Your task to perform on an android device: Find coffee shops on Maps Image 0: 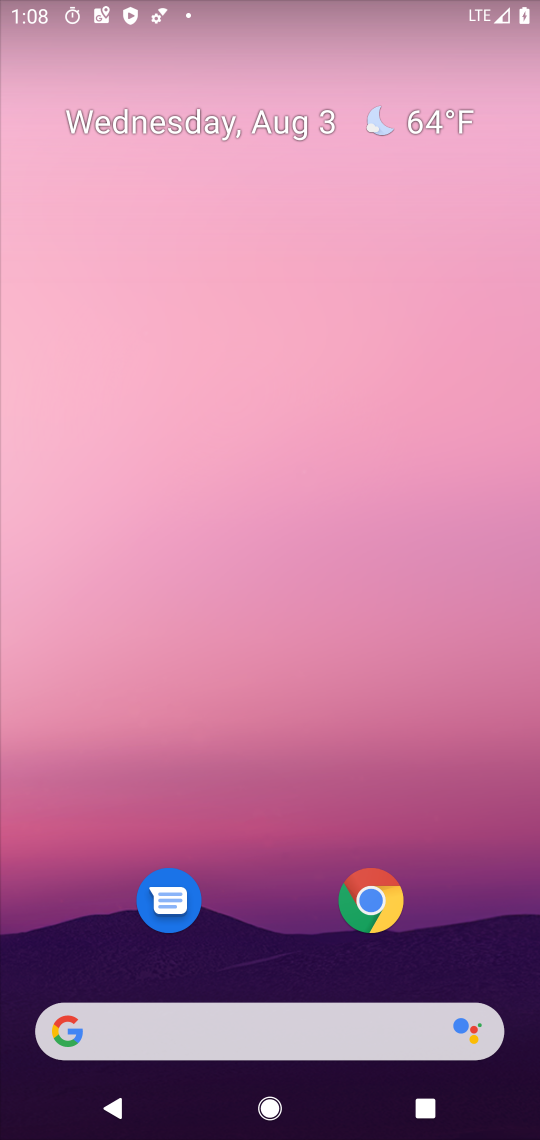
Step 0: drag from (294, 730) to (323, 153)
Your task to perform on an android device: Find coffee shops on Maps Image 1: 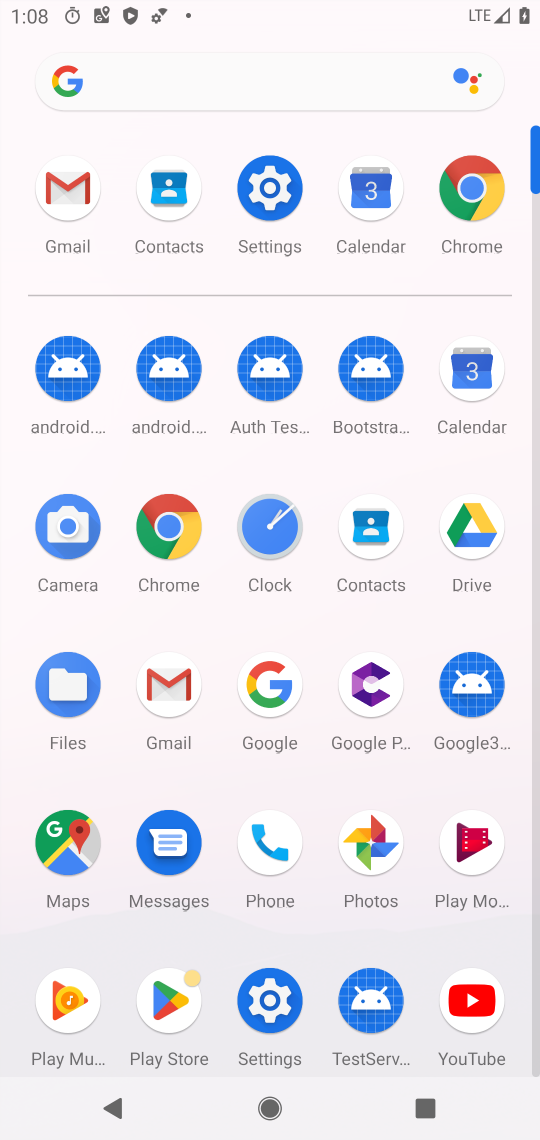
Step 1: click (65, 847)
Your task to perform on an android device: Find coffee shops on Maps Image 2: 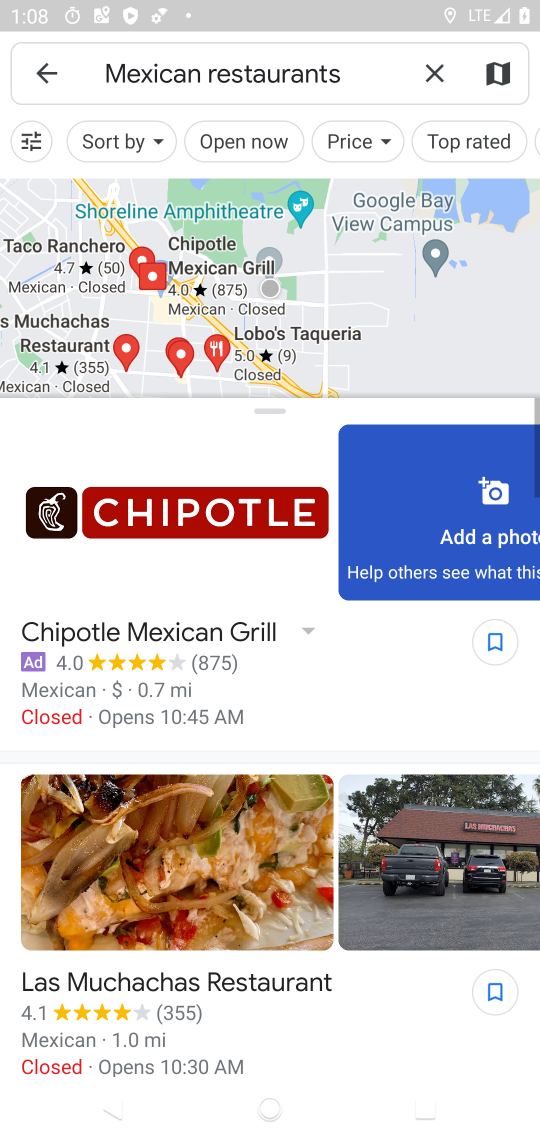
Step 2: click (408, 64)
Your task to perform on an android device: Find coffee shops on Maps Image 3: 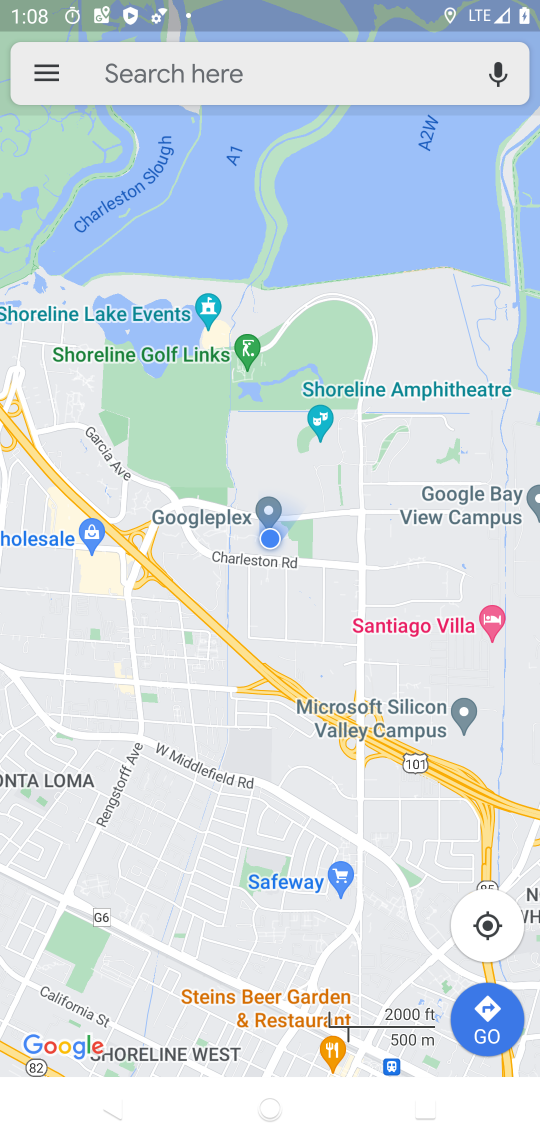
Step 3: click (356, 72)
Your task to perform on an android device: Find coffee shops on Maps Image 4: 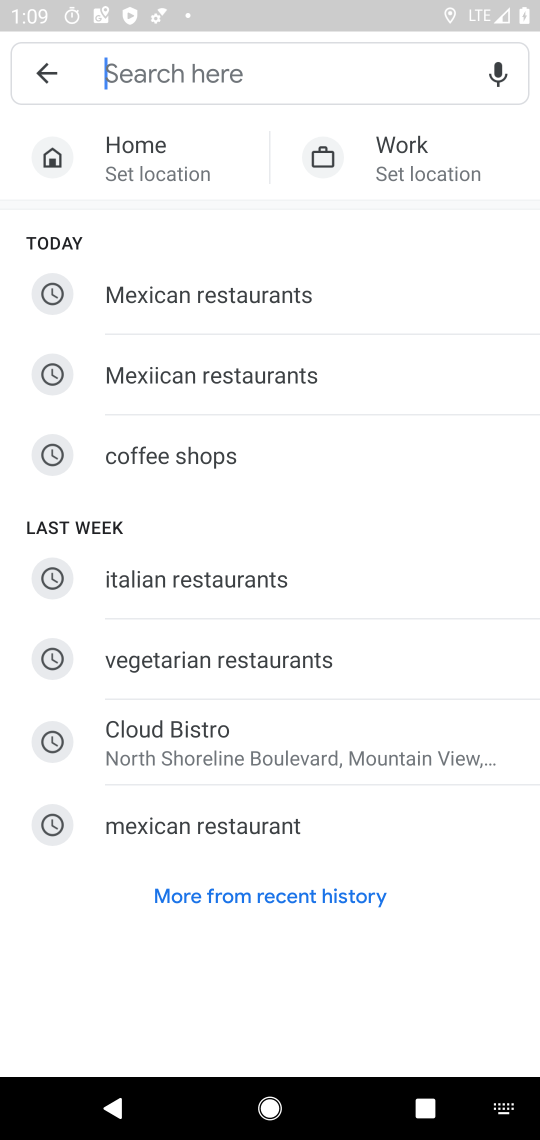
Step 4: click (221, 457)
Your task to perform on an android device: Find coffee shops on Maps Image 5: 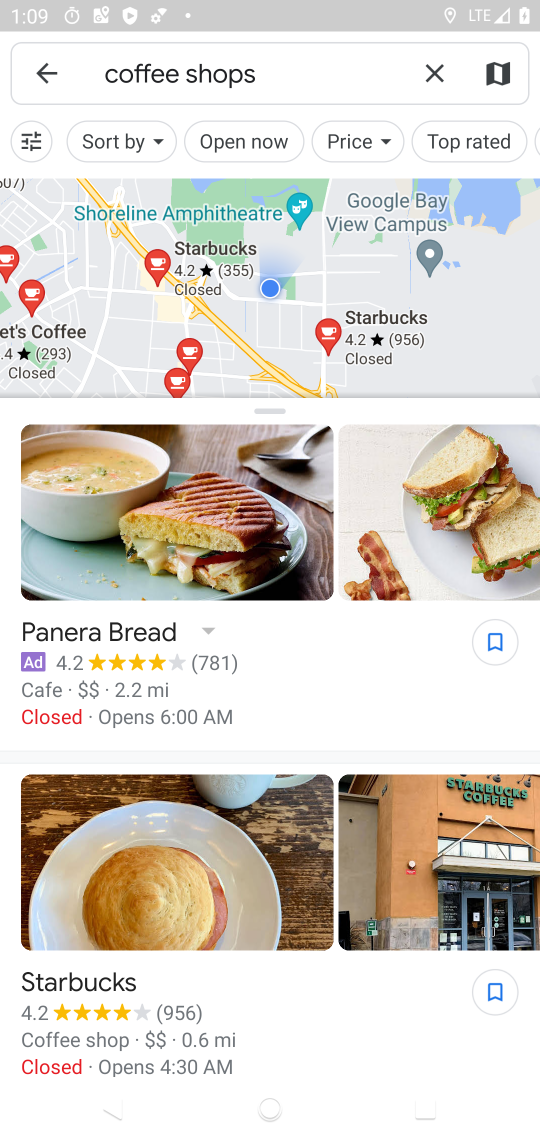
Step 5: task complete